Your task to perform on an android device: Open notification settings Image 0: 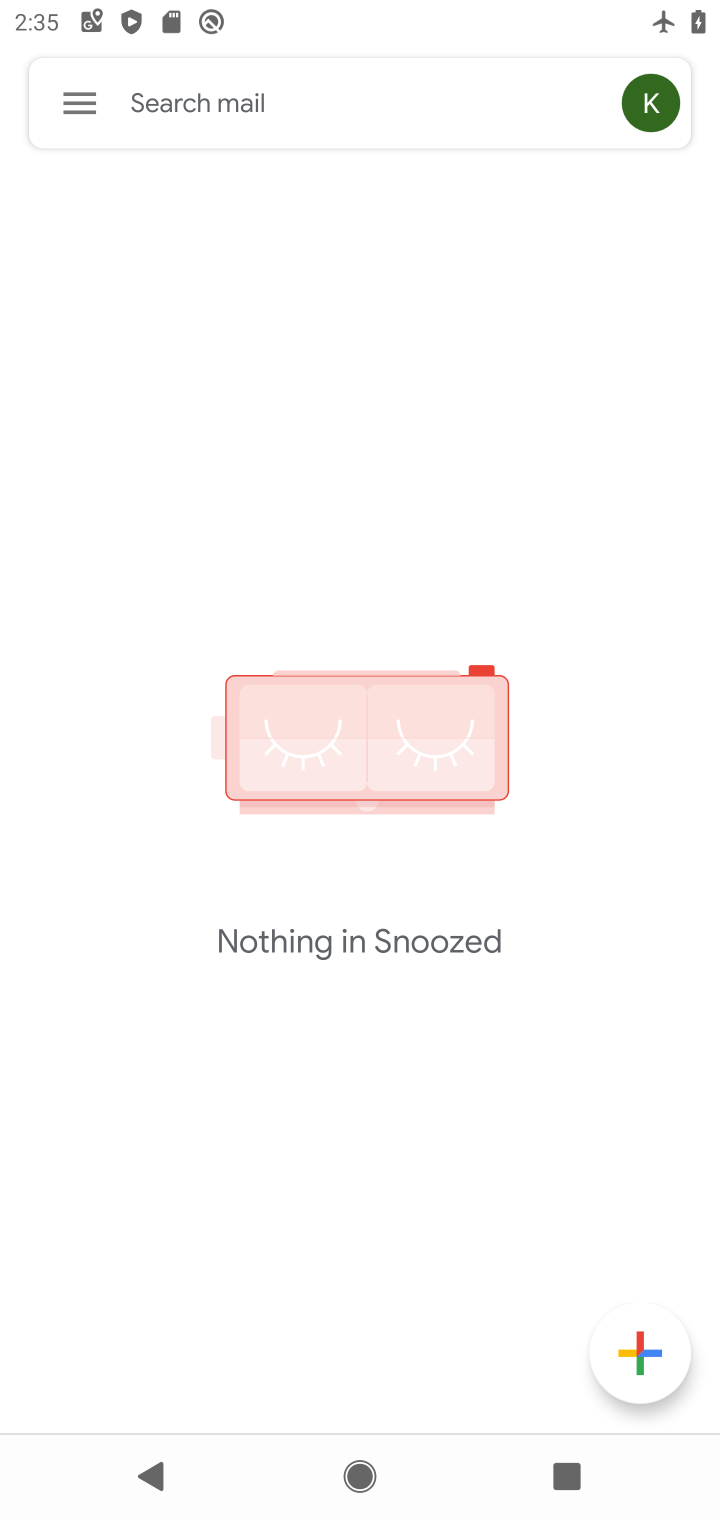
Step 0: press home button
Your task to perform on an android device: Open notification settings Image 1: 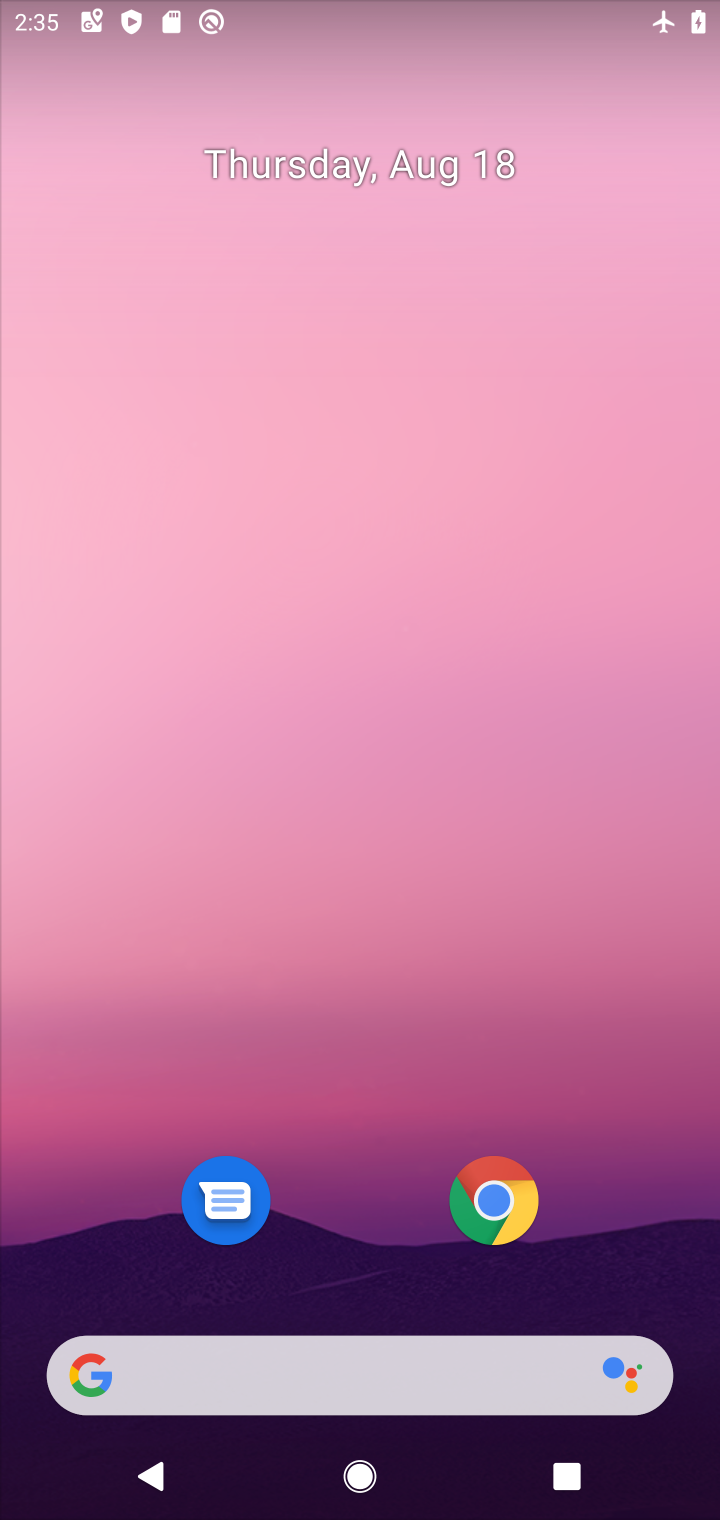
Step 1: drag from (330, 1126) to (403, 292)
Your task to perform on an android device: Open notification settings Image 2: 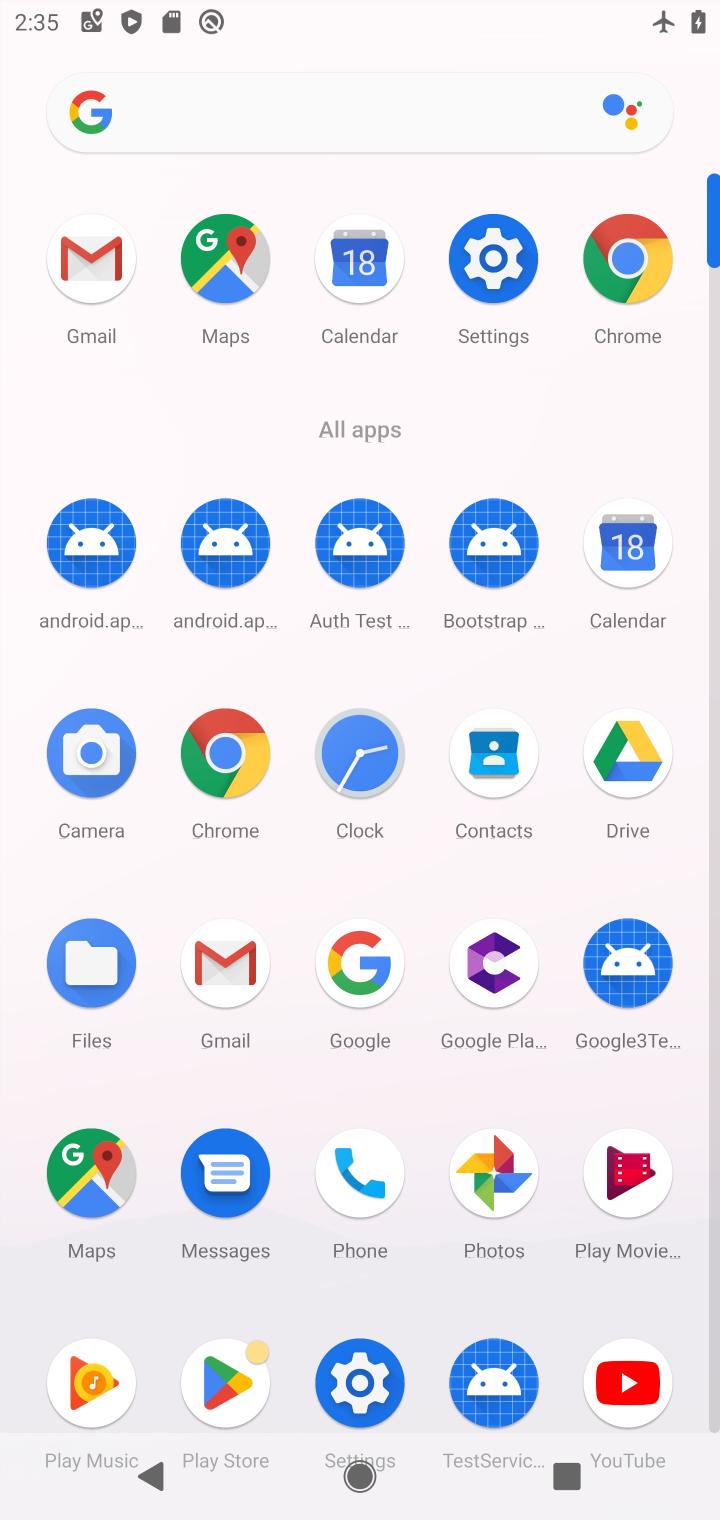
Step 2: click (339, 1349)
Your task to perform on an android device: Open notification settings Image 3: 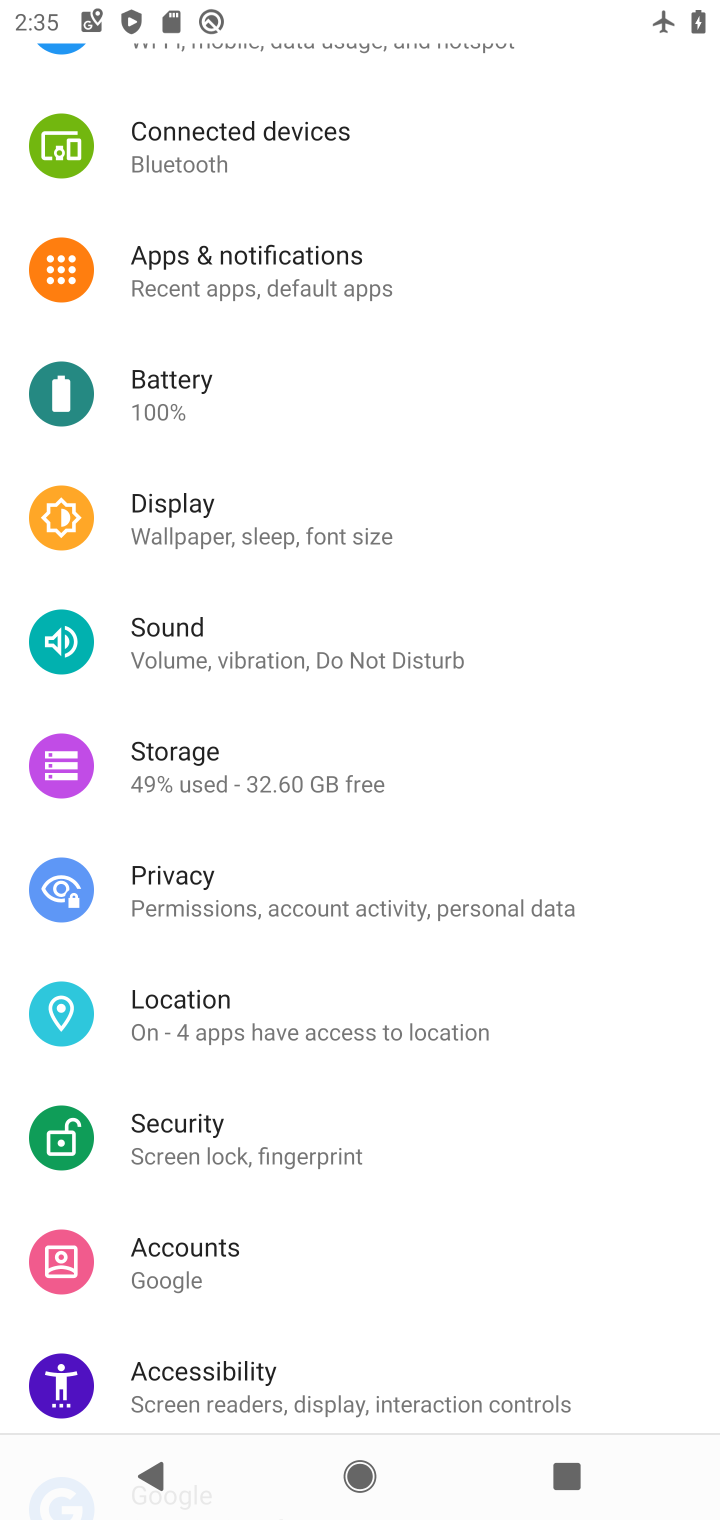
Step 3: click (261, 270)
Your task to perform on an android device: Open notification settings Image 4: 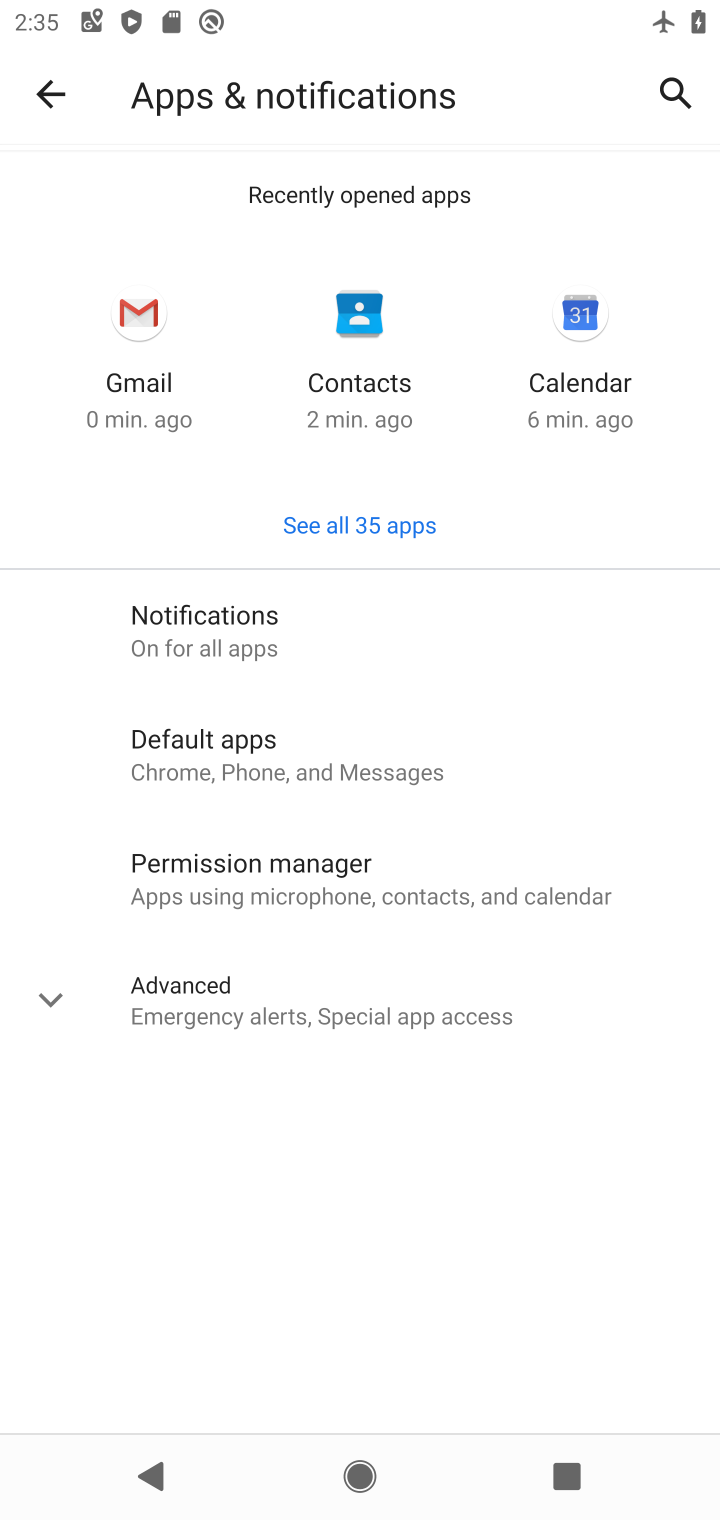
Step 4: click (163, 603)
Your task to perform on an android device: Open notification settings Image 5: 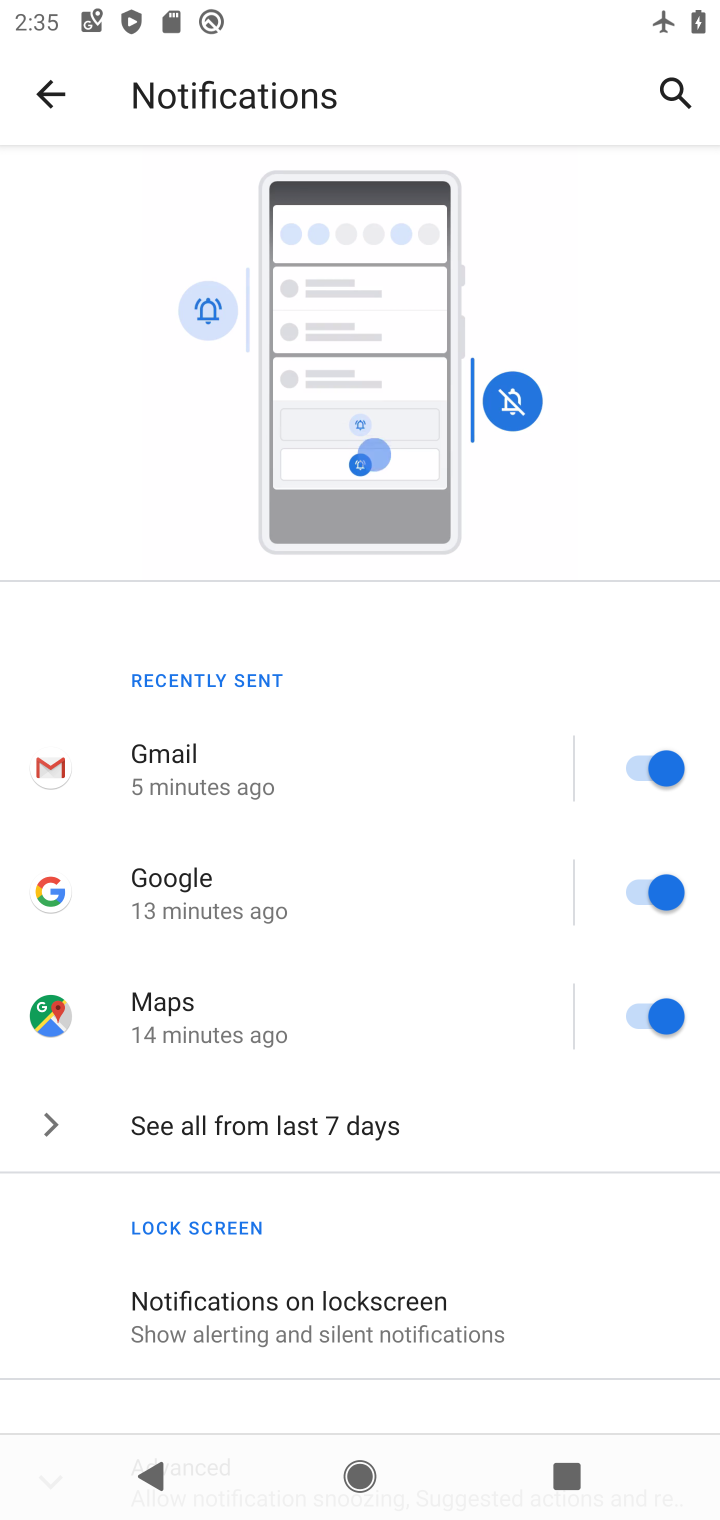
Step 5: task complete